Your task to perform on an android device: toggle translation in the chrome app Image 0: 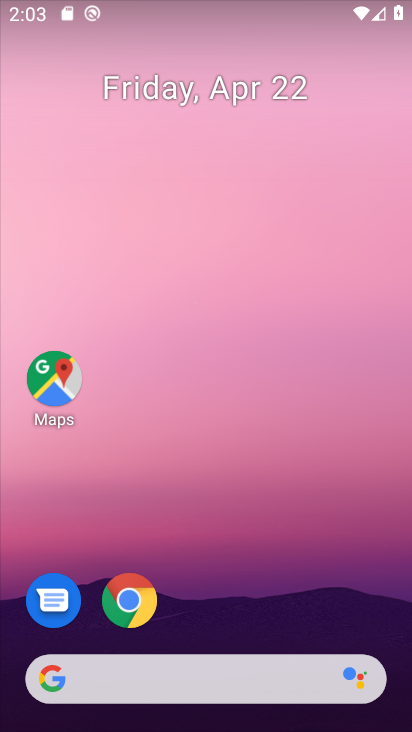
Step 0: click (125, 617)
Your task to perform on an android device: toggle translation in the chrome app Image 1: 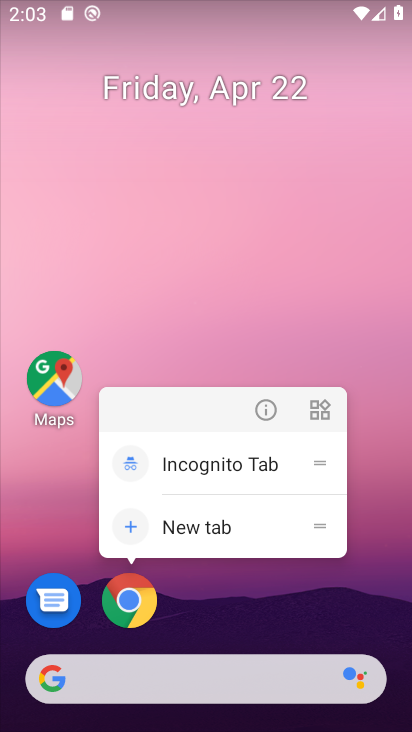
Step 1: click (128, 602)
Your task to perform on an android device: toggle translation in the chrome app Image 2: 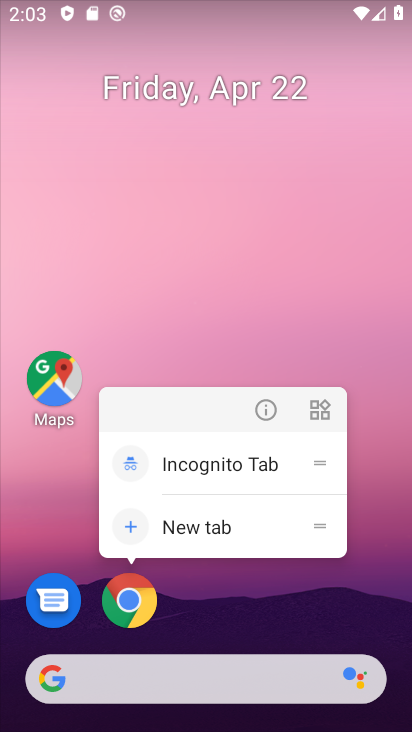
Step 2: click (130, 603)
Your task to perform on an android device: toggle translation in the chrome app Image 3: 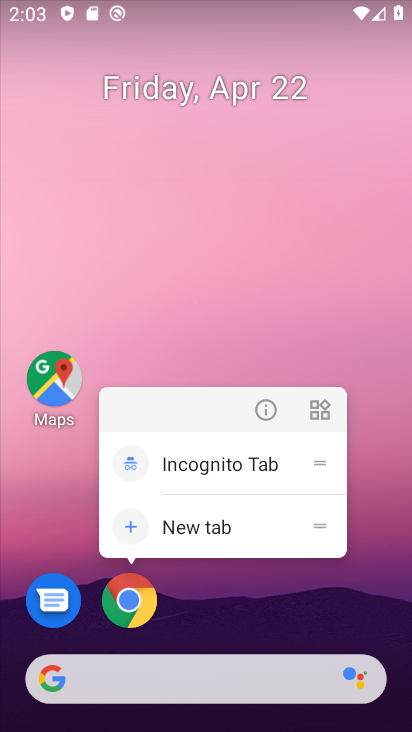
Step 3: click (131, 605)
Your task to perform on an android device: toggle translation in the chrome app Image 4: 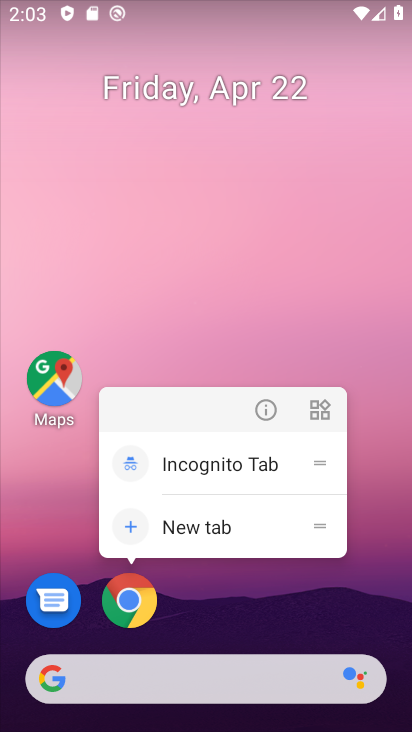
Step 4: click (129, 610)
Your task to perform on an android device: toggle translation in the chrome app Image 5: 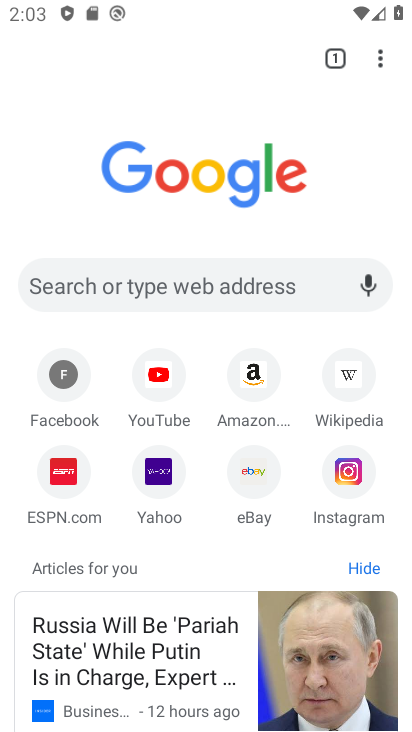
Step 5: drag from (394, 52) to (268, 468)
Your task to perform on an android device: toggle translation in the chrome app Image 6: 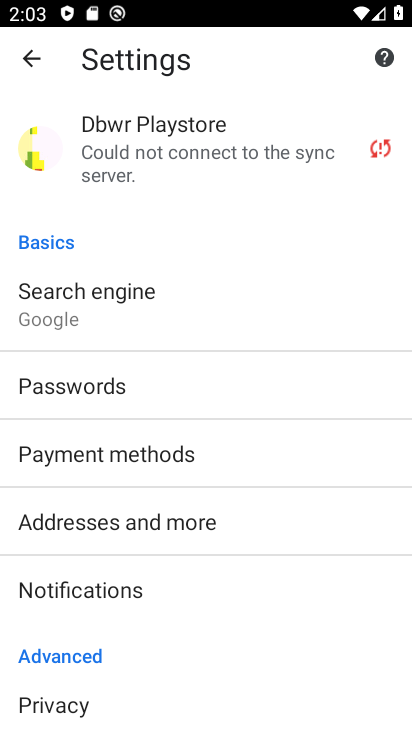
Step 6: drag from (201, 668) to (391, 205)
Your task to perform on an android device: toggle translation in the chrome app Image 7: 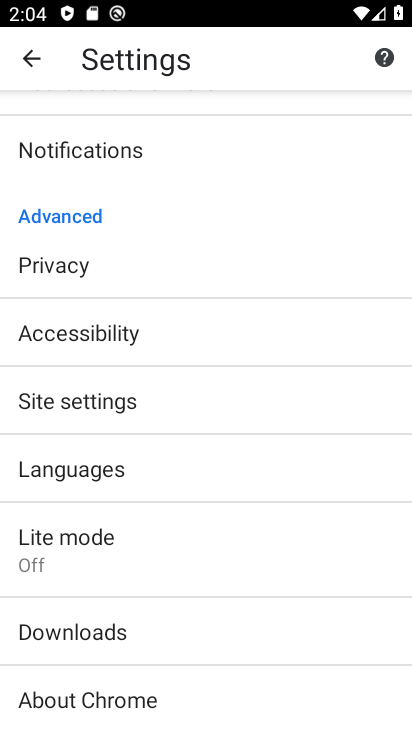
Step 7: click (180, 472)
Your task to perform on an android device: toggle translation in the chrome app Image 8: 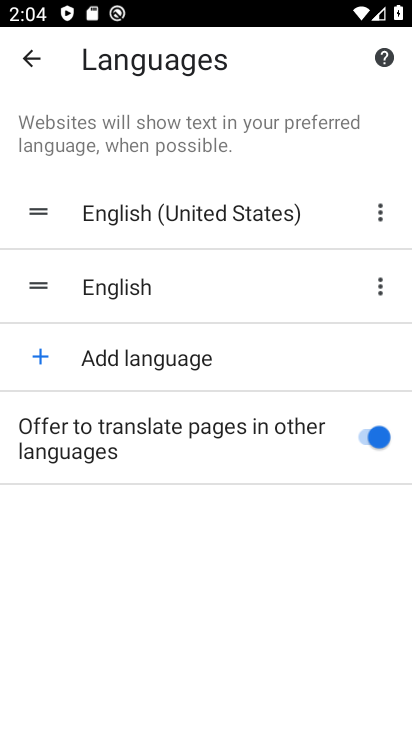
Step 8: click (372, 438)
Your task to perform on an android device: toggle translation in the chrome app Image 9: 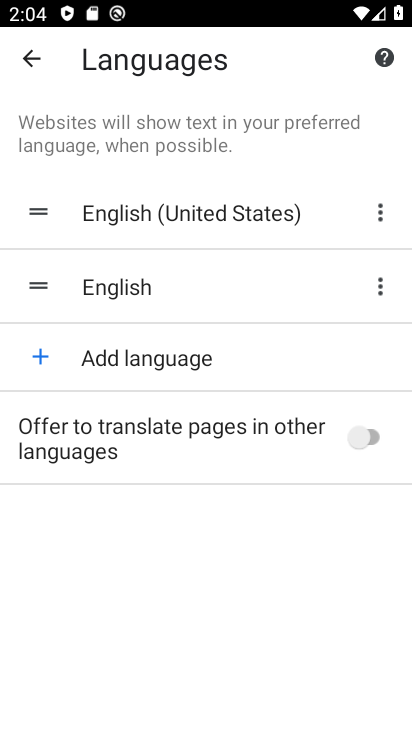
Step 9: task complete